Your task to perform on an android device: Open notification settings Image 0: 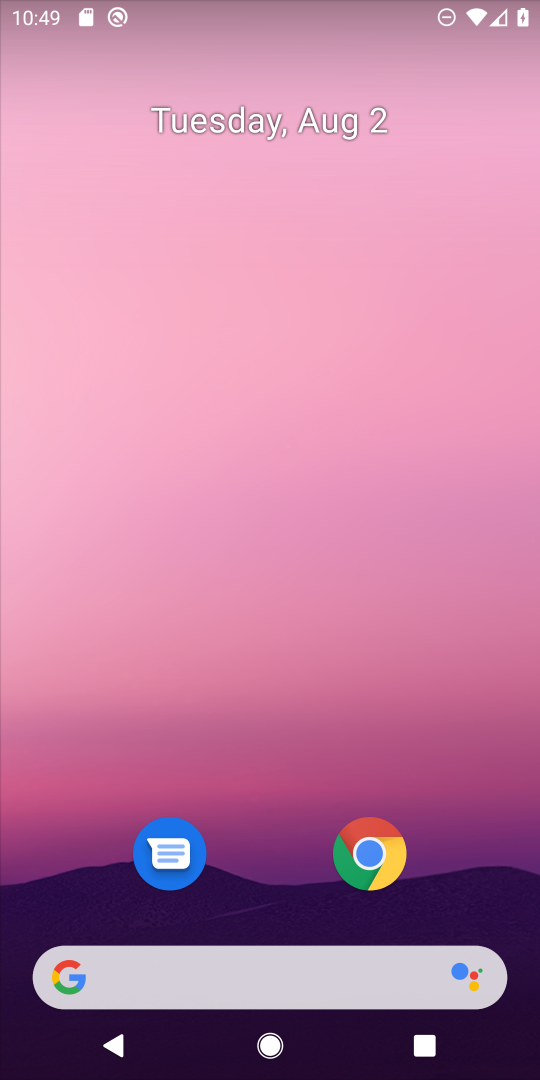
Step 0: drag from (501, 816) to (317, 126)
Your task to perform on an android device: Open notification settings Image 1: 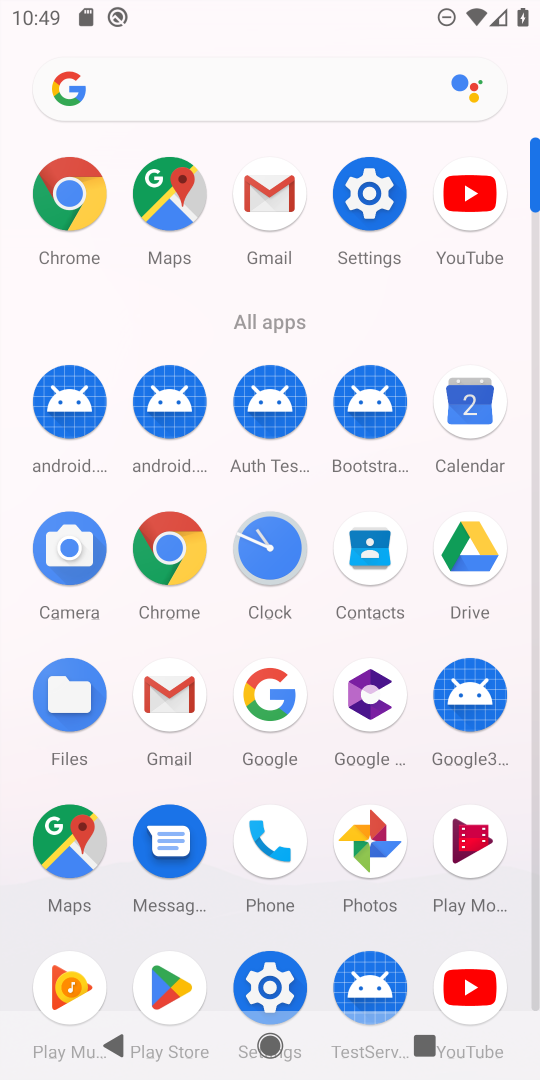
Step 1: click (358, 193)
Your task to perform on an android device: Open notification settings Image 2: 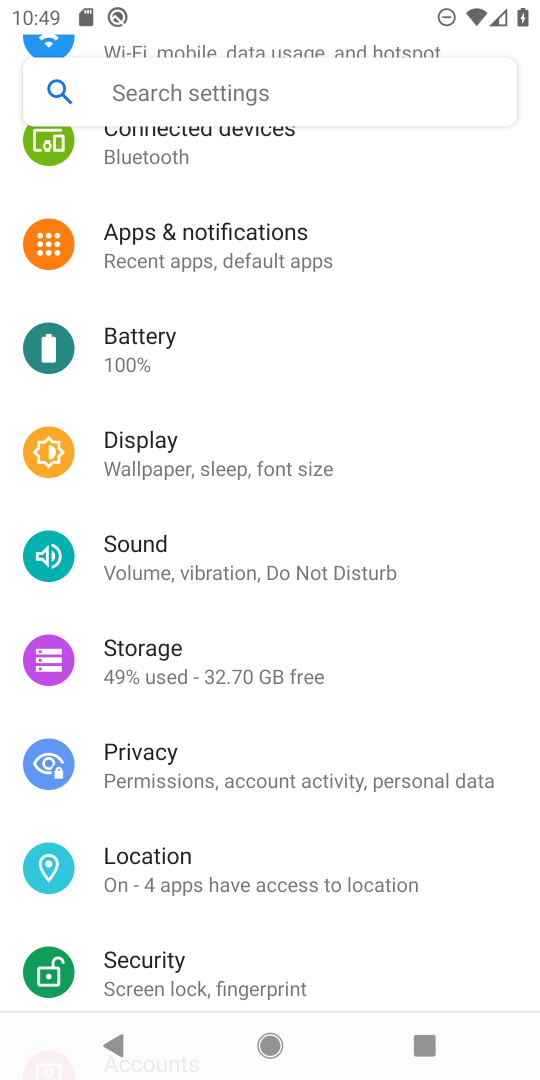
Step 2: click (196, 258)
Your task to perform on an android device: Open notification settings Image 3: 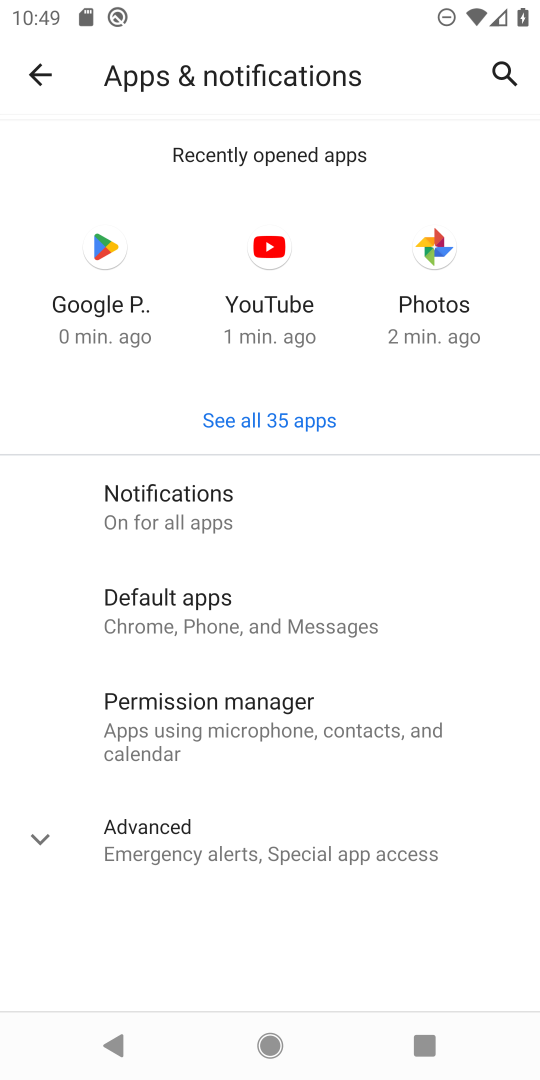
Step 3: click (195, 496)
Your task to perform on an android device: Open notification settings Image 4: 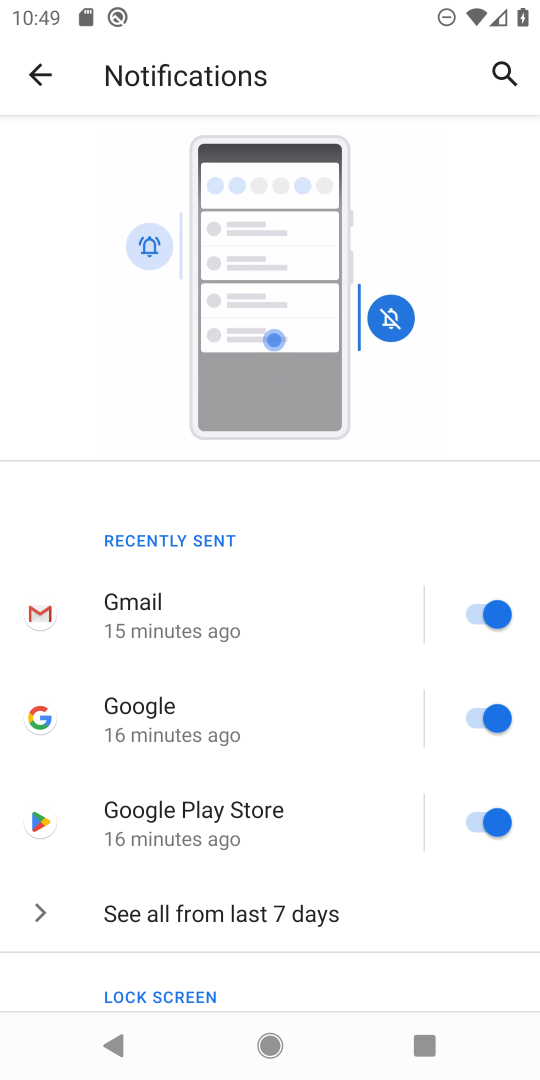
Step 4: task complete